Your task to perform on an android device: Go to Maps Image 0: 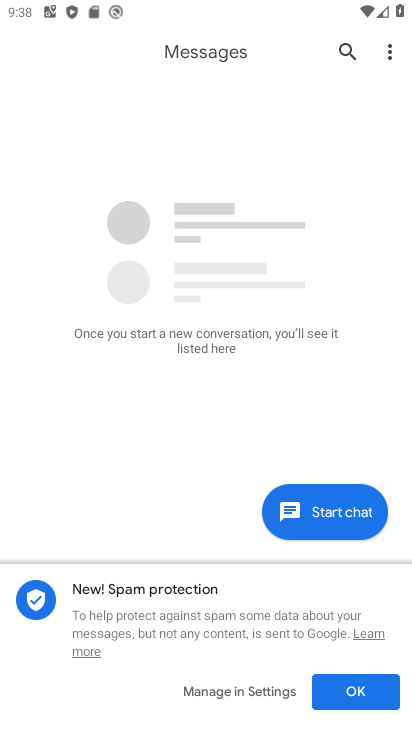
Step 0: press home button
Your task to perform on an android device: Go to Maps Image 1: 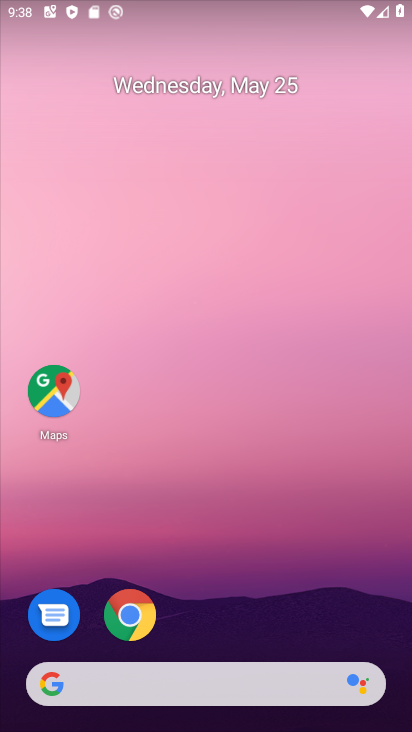
Step 1: click (65, 379)
Your task to perform on an android device: Go to Maps Image 2: 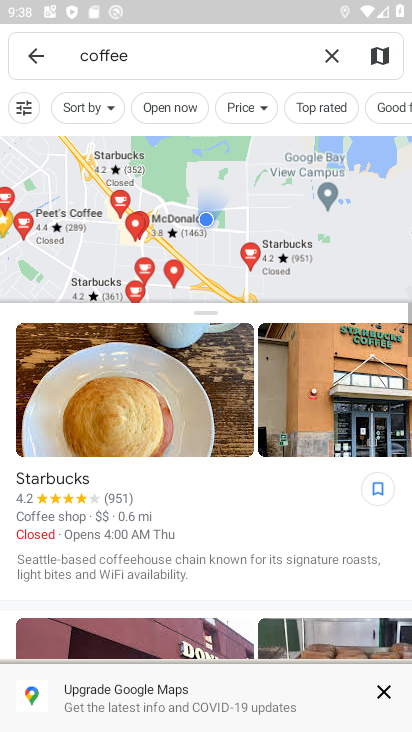
Step 2: click (334, 53)
Your task to perform on an android device: Go to Maps Image 3: 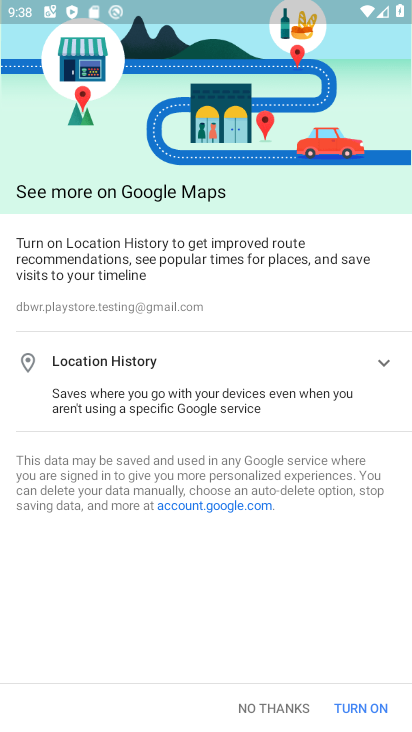
Step 3: click (347, 707)
Your task to perform on an android device: Go to Maps Image 4: 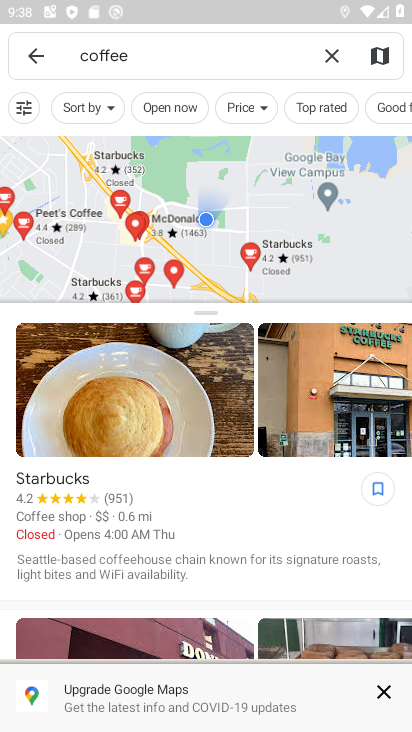
Step 4: click (331, 45)
Your task to perform on an android device: Go to Maps Image 5: 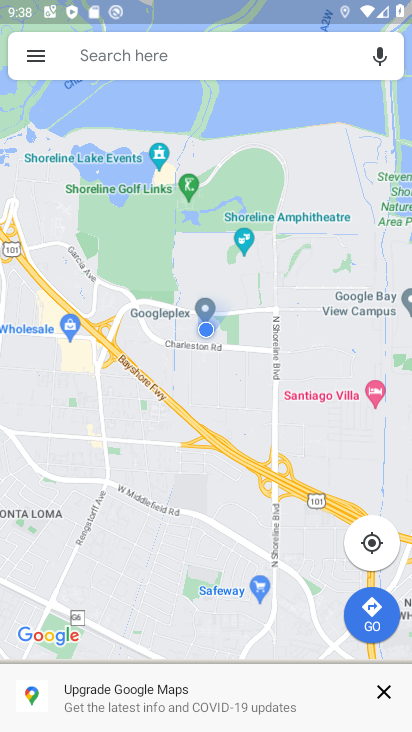
Step 5: task complete